Your task to perform on an android device: move an email to a new category in the gmail app Image 0: 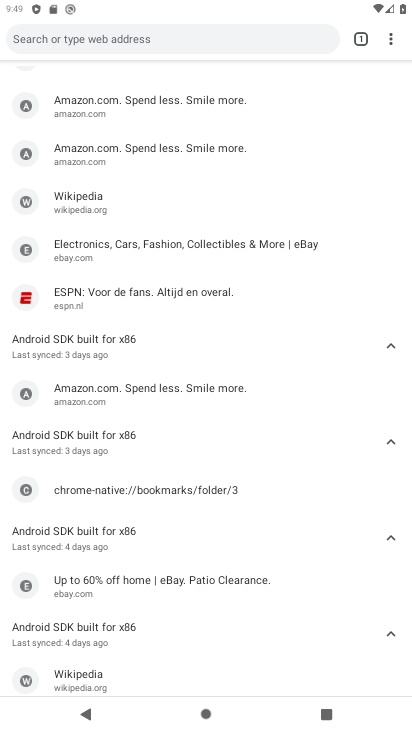
Step 0: press home button
Your task to perform on an android device: move an email to a new category in the gmail app Image 1: 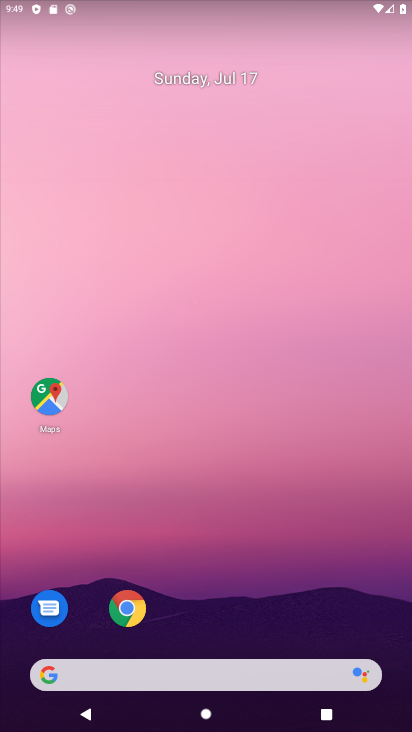
Step 1: drag from (395, 648) to (335, 53)
Your task to perform on an android device: move an email to a new category in the gmail app Image 2: 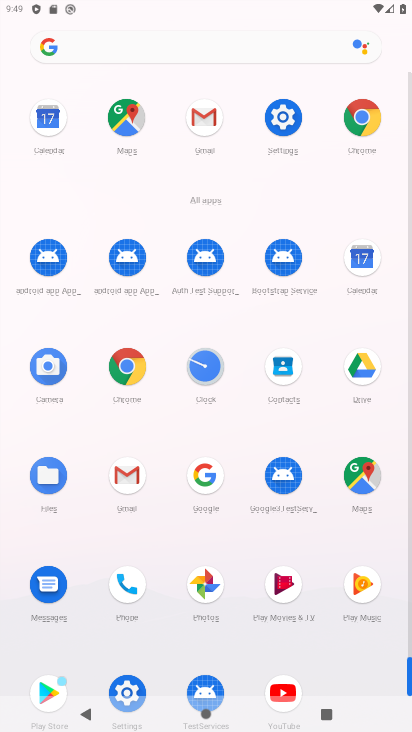
Step 2: click (128, 475)
Your task to perform on an android device: move an email to a new category in the gmail app Image 3: 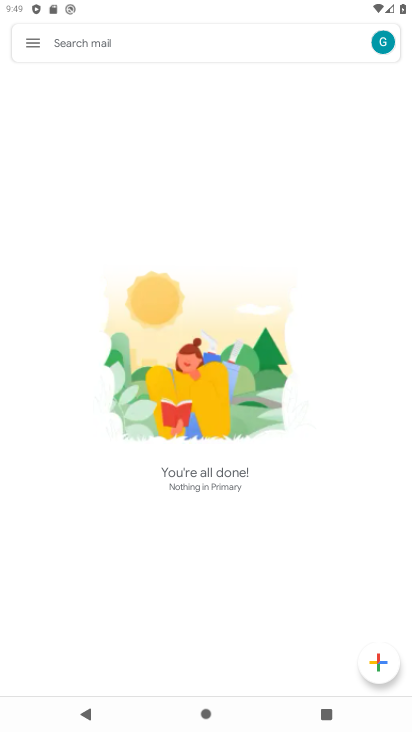
Step 3: click (31, 42)
Your task to perform on an android device: move an email to a new category in the gmail app Image 4: 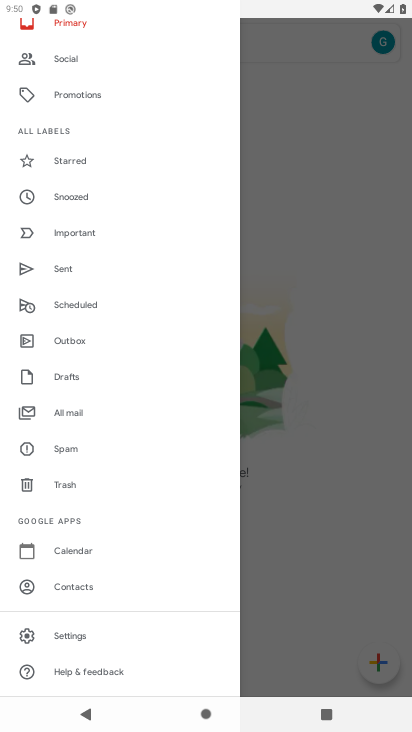
Step 4: click (72, 409)
Your task to perform on an android device: move an email to a new category in the gmail app Image 5: 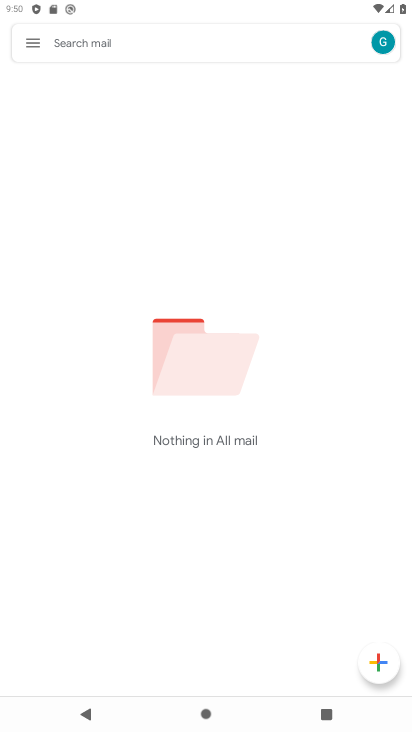
Step 5: task complete